Your task to perform on an android device: uninstall "ColorNote Notepad Notes" Image 0: 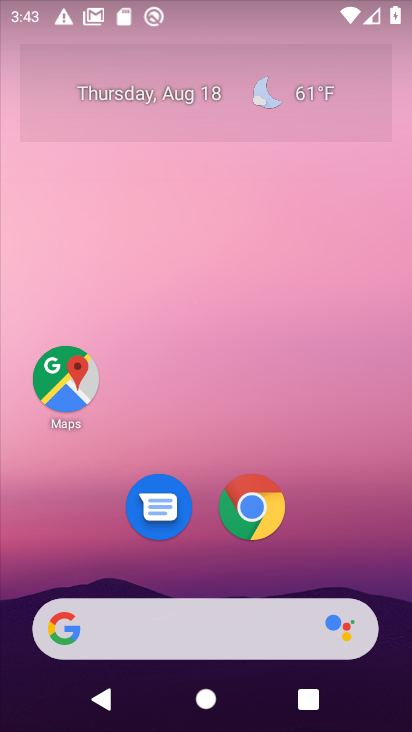
Step 0: drag from (83, 549) to (216, 23)
Your task to perform on an android device: uninstall "ColorNote Notepad Notes" Image 1: 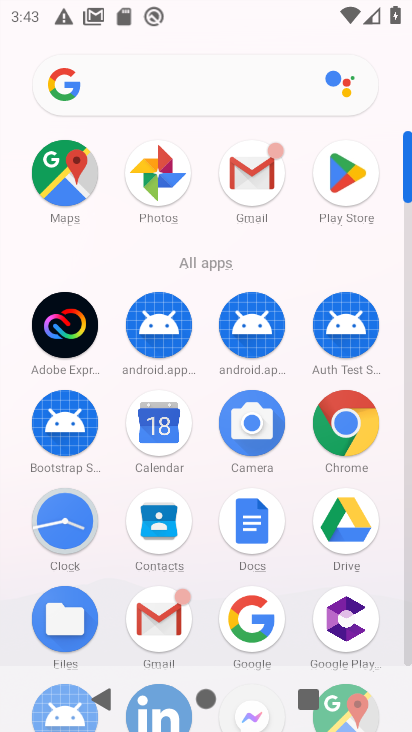
Step 1: click (325, 173)
Your task to perform on an android device: uninstall "ColorNote Notepad Notes" Image 2: 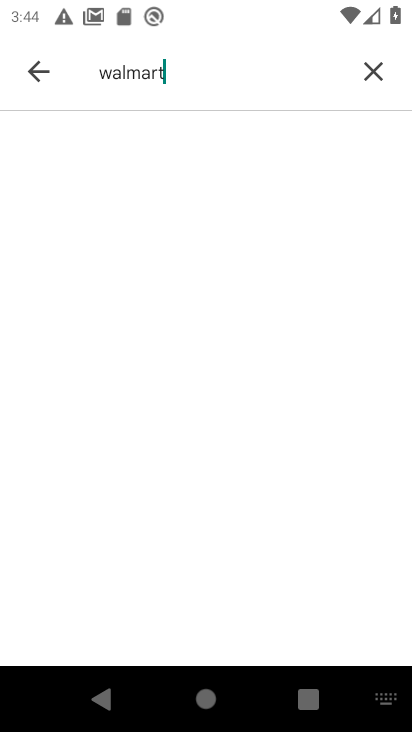
Step 2: click (370, 60)
Your task to perform on an android device: uninstall "ColorNote Notepad Notes" Image 3: 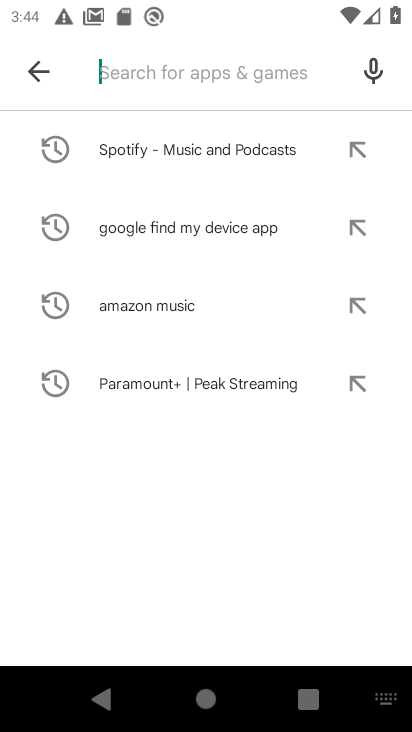
Step 3: click (189, 59)
Your task to perform on an android device: uninstall "ColorNote Notepad Notes" Image 4: 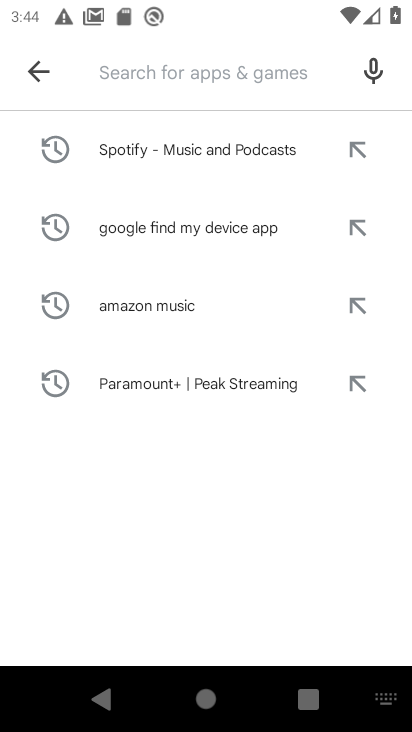
Step 4: type "ColorNote Notepad Notes"
Your task to perform on an android device: uninstall "ColorNote Notepad Notes" Image 5: 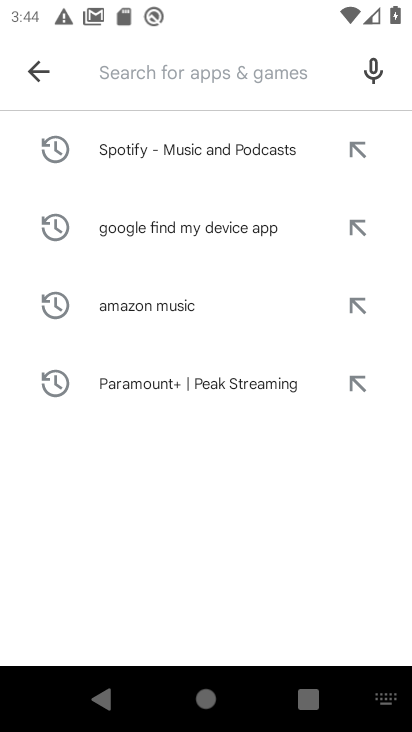
Step 5: click (345, 496)
Your task to perform on an android device: uninstall "ColorNote Notepad Notes" Image 6: 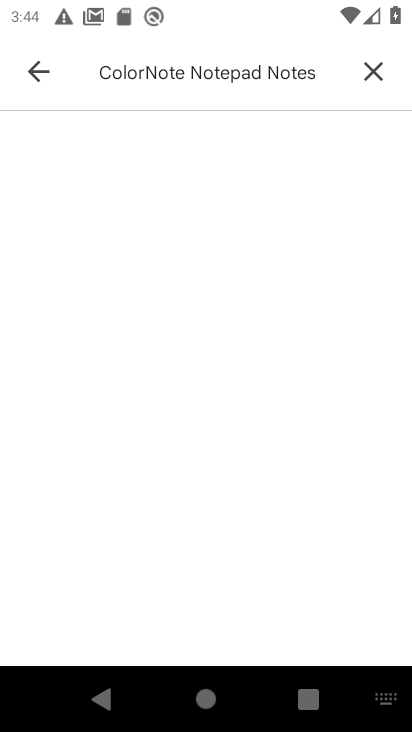
Step 6: task complete